Your task to perform on an android device: Do I have any events tomorrow? Image 0: 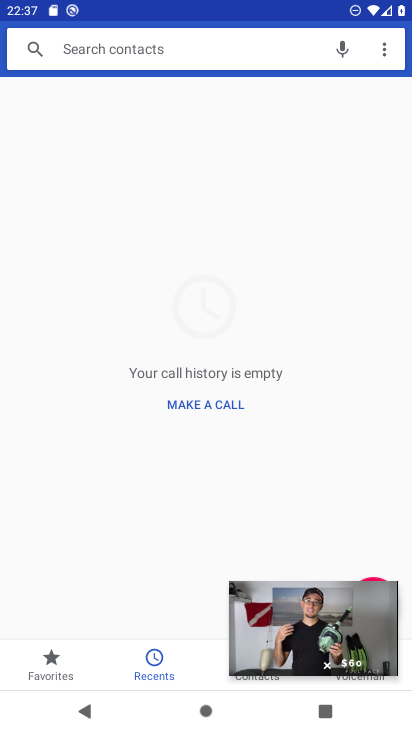
Step 0: press home button
Your task to perform on an android device: Do I have any events tomorrow? Image 1: 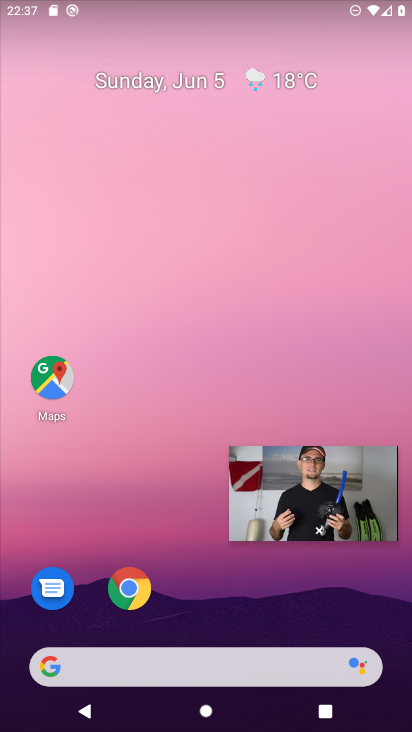
Step 1: drag from (189, 557) to (229, 90)
Your task to perform on an android device: Do I have any events tomorrow? Image 2: 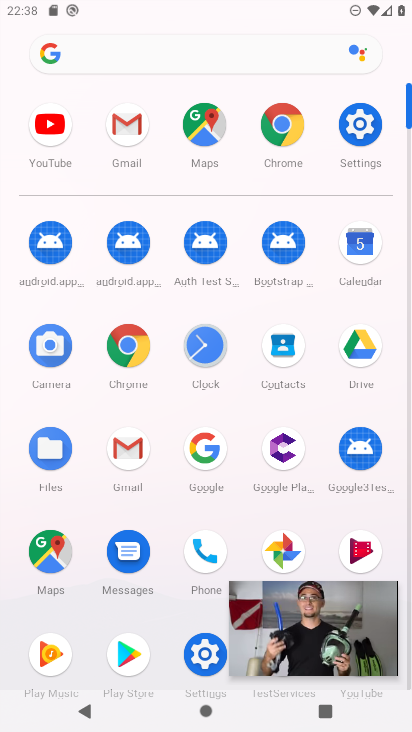
Step 2: click (347, 267)
Your task to perform on an android device: Do I have any events tomorrow? Image 3: 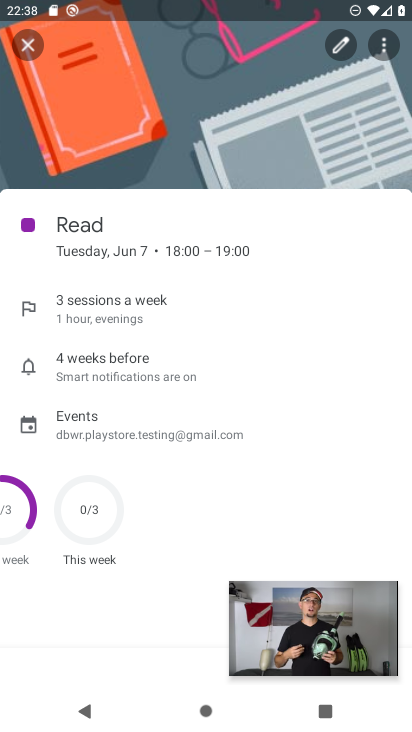
Step 3: press back button
Your task to perform on an android device: Do I have any events tomorrow? Image 4: 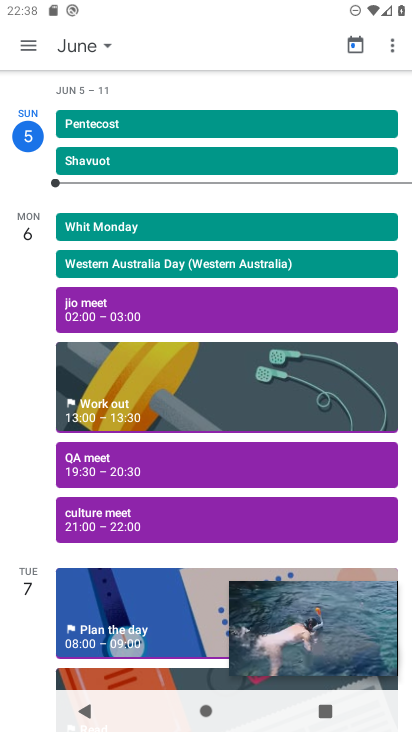
Step 4: drag from (158, 387) to (170, 161)
Your task to perform on an android device: Do I have any events tomorrow? Image 5: 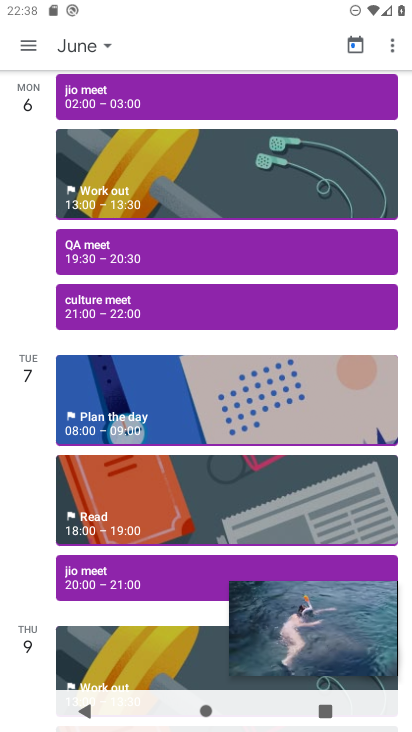
Step 5: drag from (178, 442) to (190, 194)
Your task to perform on an android device: Do I have any events tomorrow? Image 6: 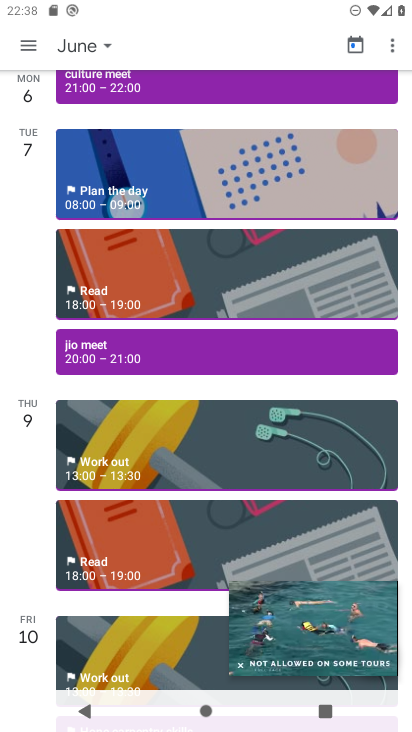
Step 6: click (181, 277)
Your task to perform on an android device: Do I have any events tomorrow? Image 7: 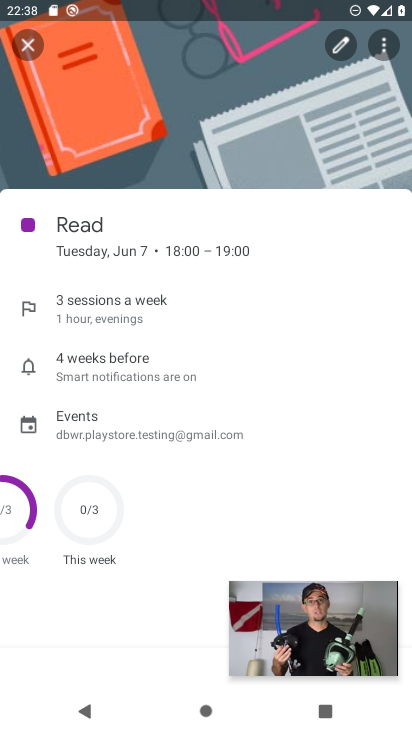
Step 7: task complete